Your task to perform on an android device: Search for seafood restaurants on Google Maps Image 0: 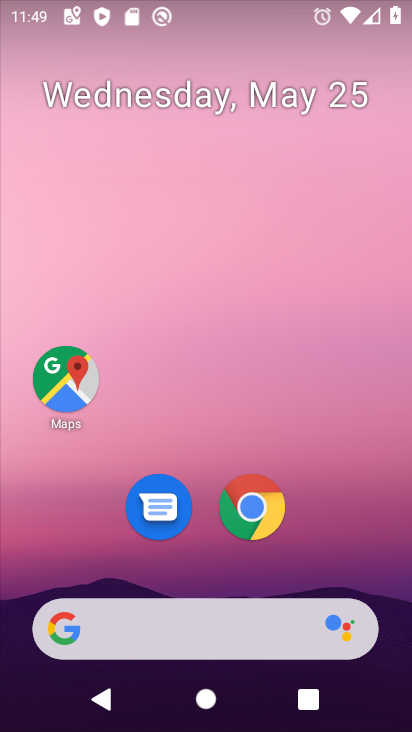
Step 0: click (64, 378)
Your task to perform on an android device: Search for seafood restaurants on Google Maps Image 1: 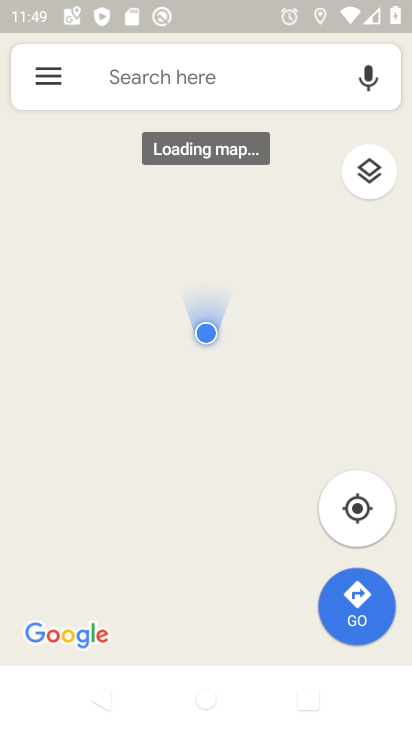
Step 1: click (172, 86)
Your task to perform on an android device: Search for seafood restaurants on Google Maps Image 2: 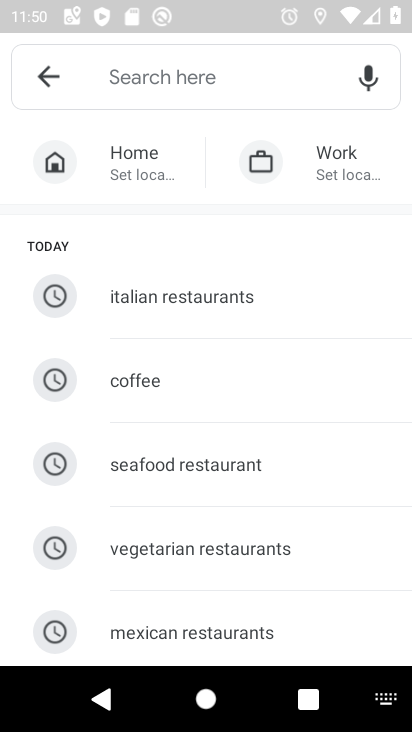
Step 2: type "seafood restaurants"
Your task to perform on an android device: Search for seafood restaurants on Google Maps Image 3: 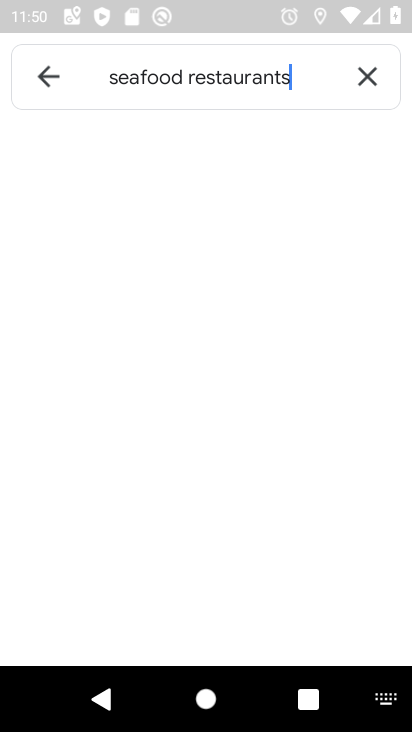
Step 3: type ""
Your task to perform on an android device: Search for seafood restaurants on Google Maps Image 4: 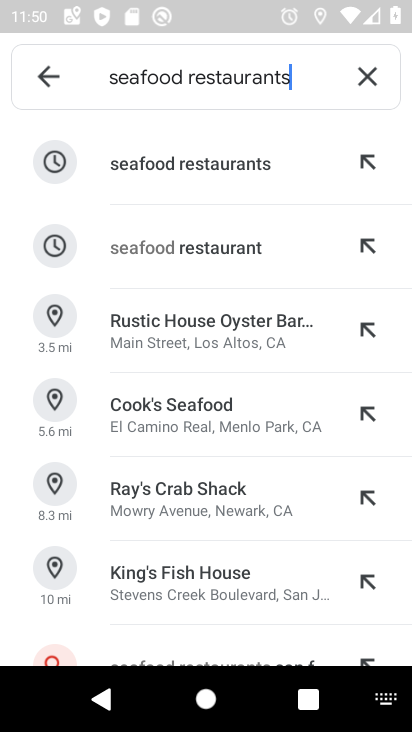
Step 4: click (177, 169)
Your task to perform on an android device: Search for seafood restaurants on Google Maps Image 5: 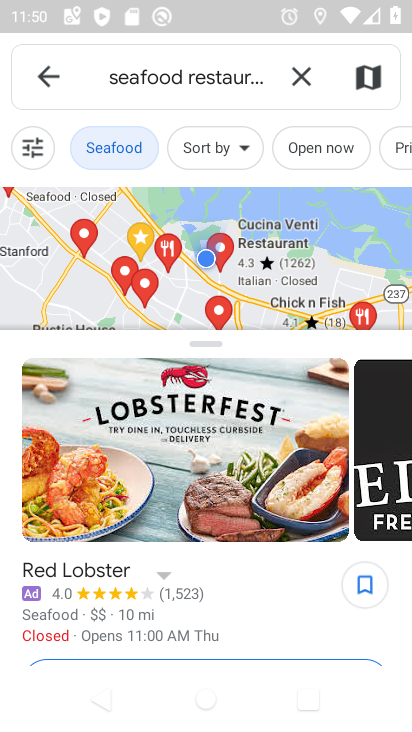
Step 5: task complete